Your task to perform on an android device: Go to Reddit.com Image 0: 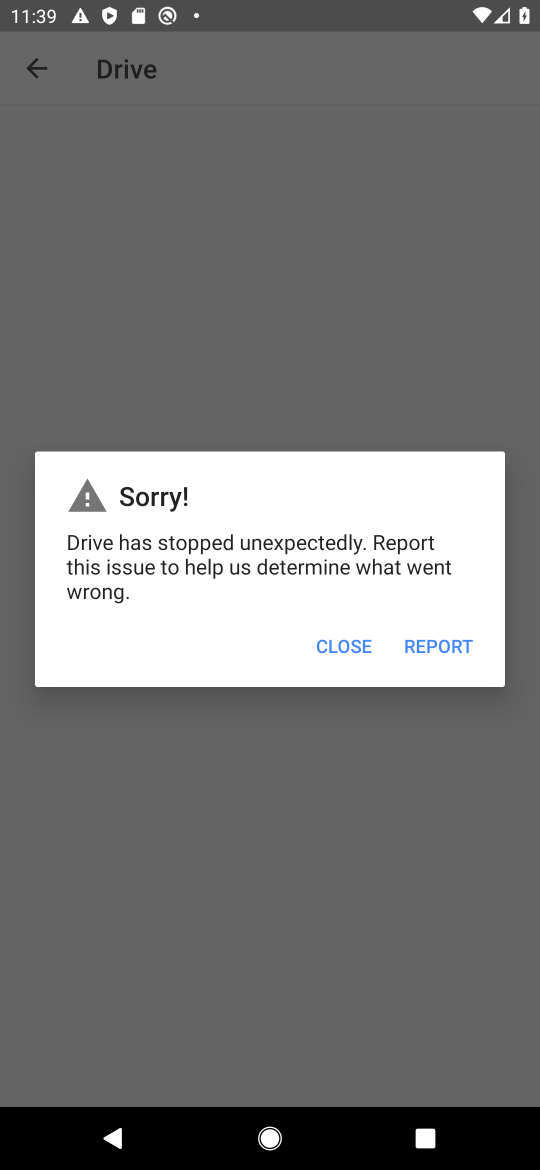
Step 0: press home button
Your task to perform on an android device: Go to Reddit.com Image 1: 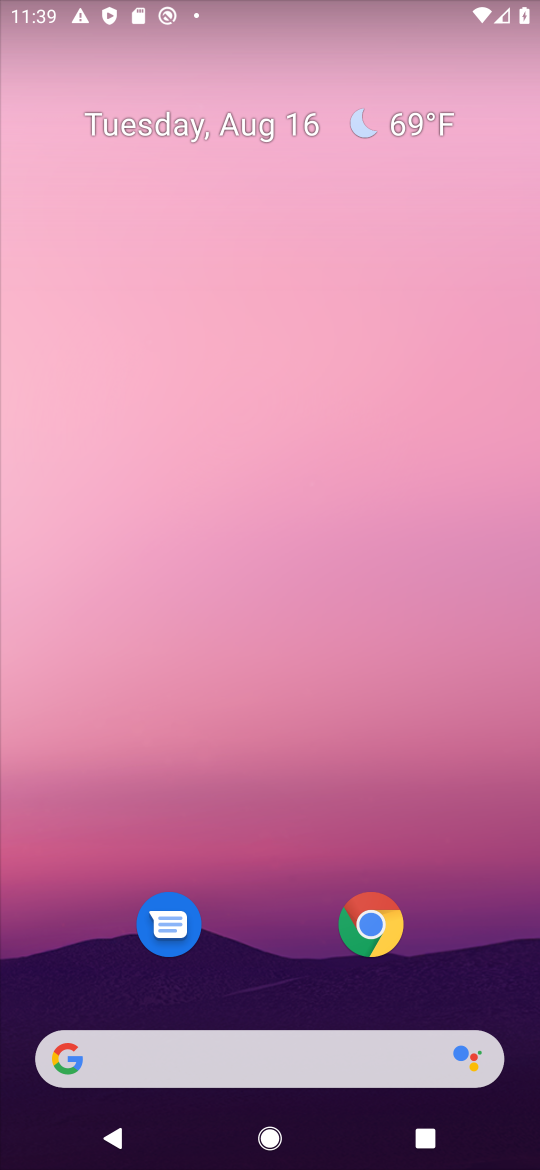
Step 1: click (293, 1056)
Your task to perform on an android device: Go to Reddit.com Image 2: 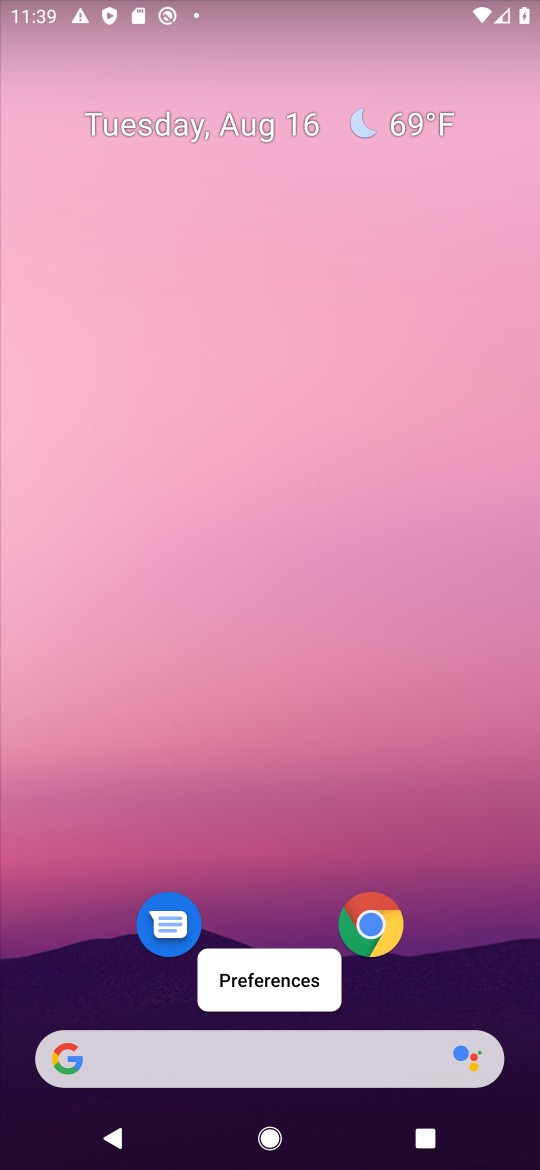
Step 2: click (293, 1056)
Your task to perform on an android device: Go to Reddit.com Image 3: 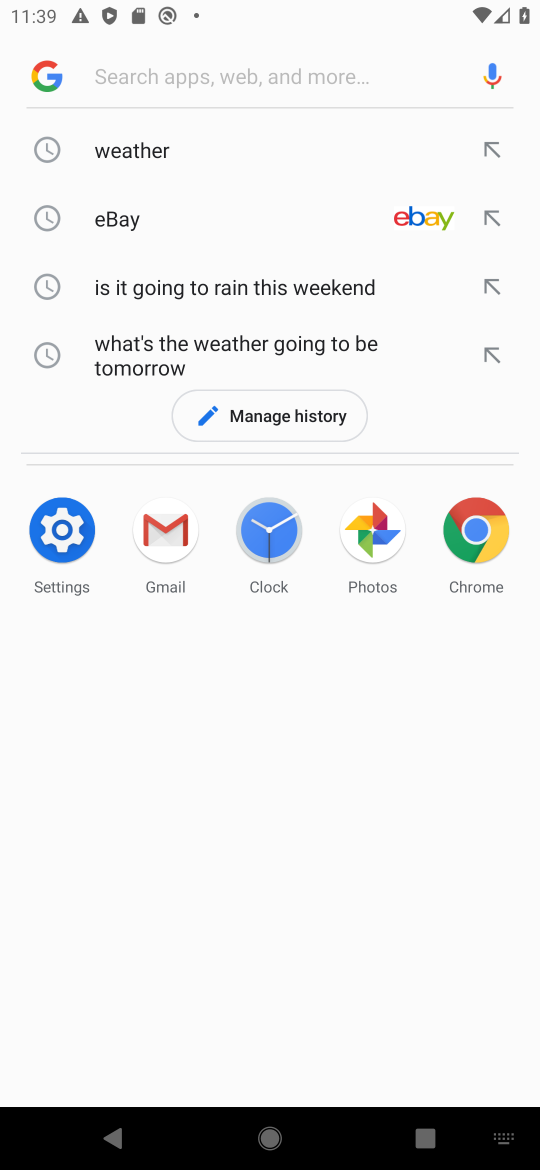
Step 3: click (182, 79)
Your task to perform on an android device: Go to Reddit.com Image 4: 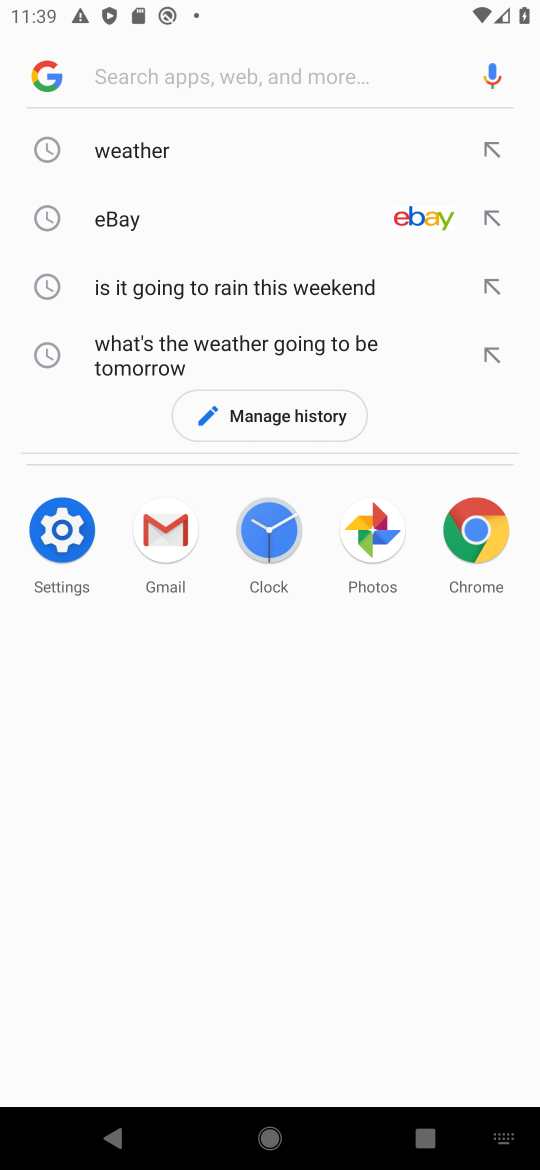
Step 4: type "reddit"
Your task to perform on an android device: Go to Reddit.com Image 5: 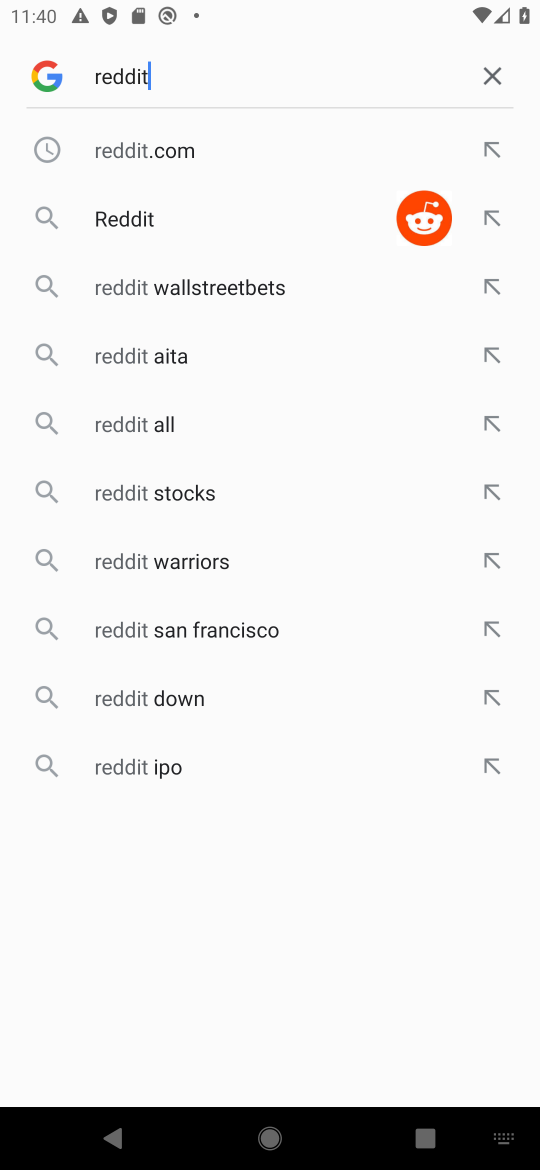
Step 5: click (303, 218)
Your task to perform on an android device: Go to Reddit.com Image 6: 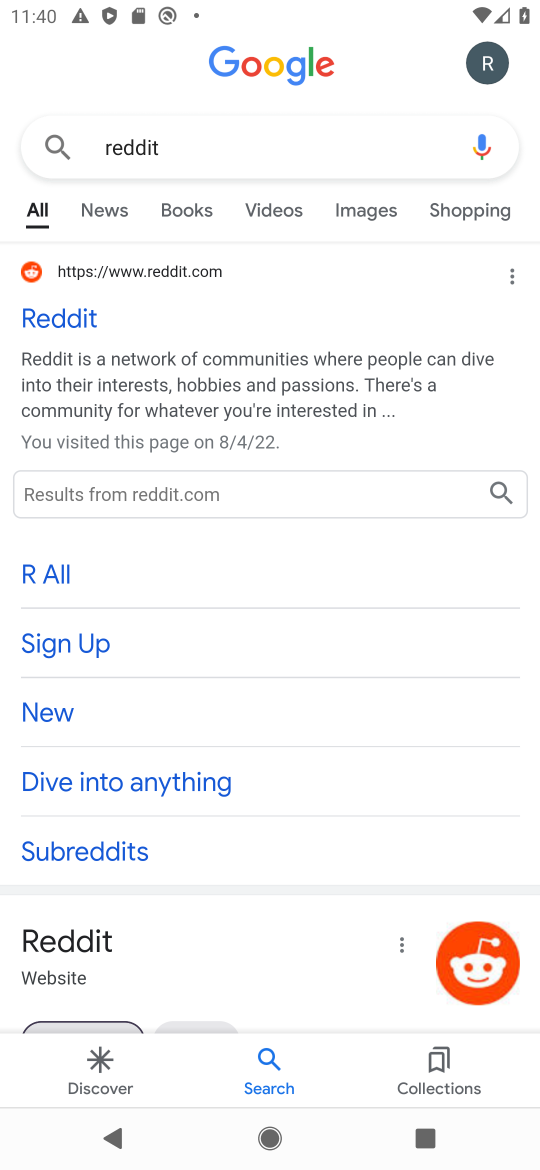
Step 6: click (73, 328)
Your task to perform on an android device: Go to Reddit.com Image 7: 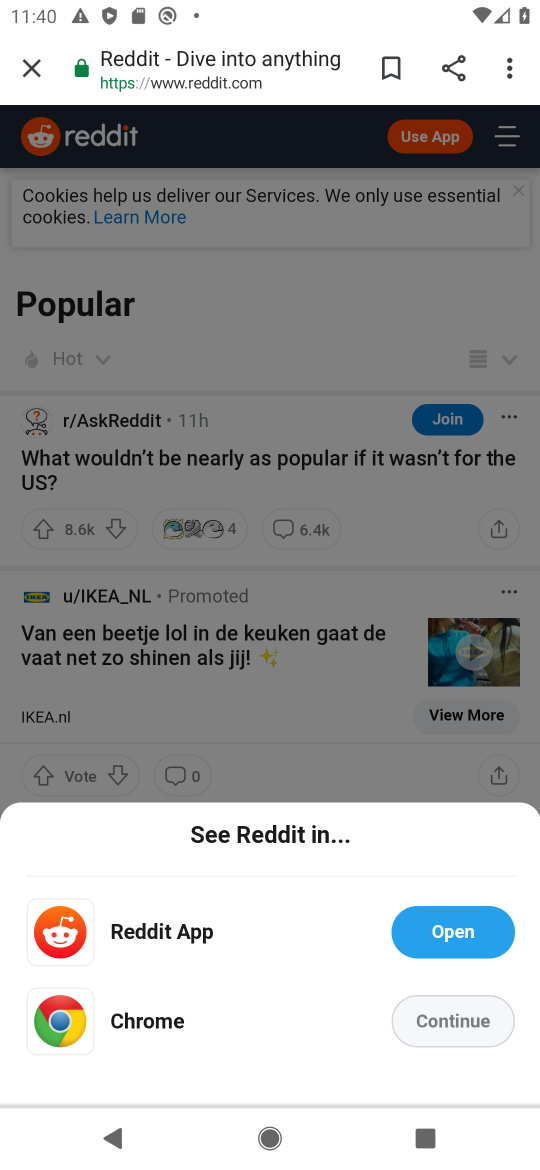
Step 7: task complete